Your task to perform on an android device: refresh tabs in the chrome app Image 0: 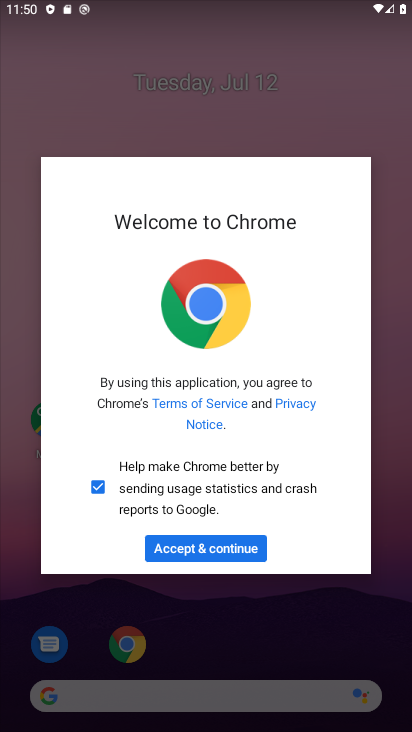
Step 0: click (181, 545)
Your task to perform on an android device: refresh tabs in the chrome app Image 1: 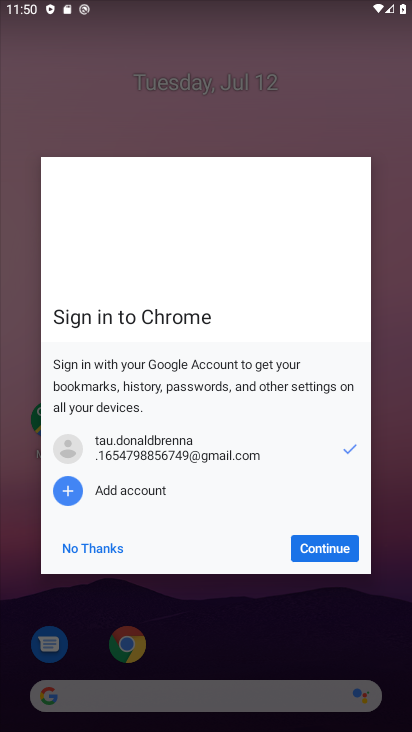
Step 1: click (332, 544)
Your task to perform on an android device: refresh tabs in the chrome app Image 2: 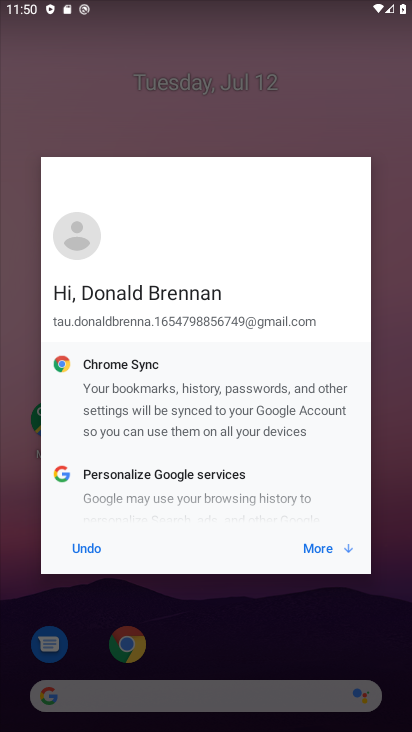
Step 2: click (332, 544)
Your task to perform on an android device: refresh tabs in the chrome app Image 3: 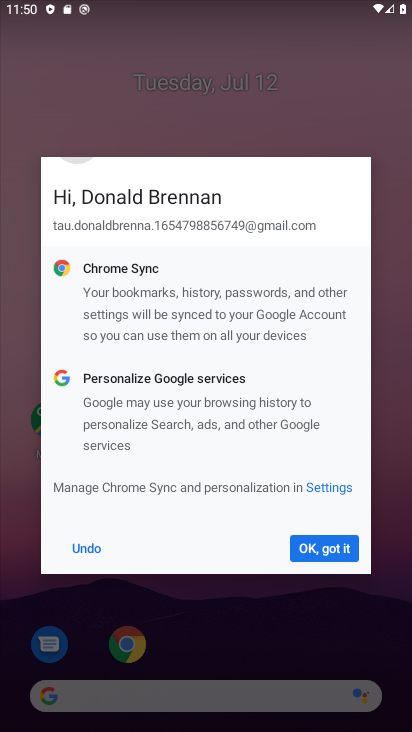
Step 3: click (332, 544)
Your task to perform on an android device: refresh tabs in the chrome app Image 4: 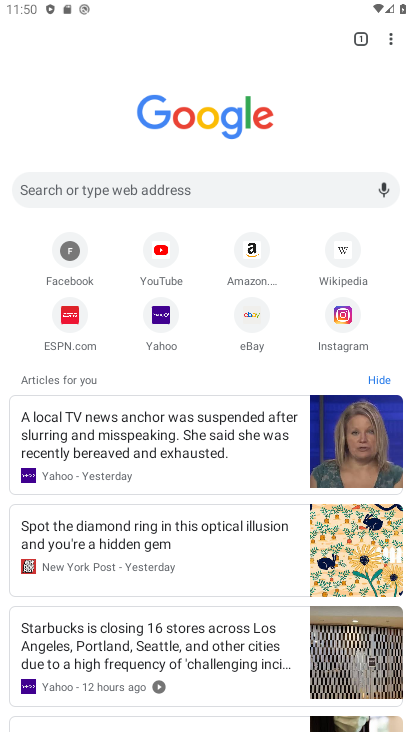
Step 4: click (385, 35)
Your task to perform on an android device: refresh tabs in the chrome app Image 5: 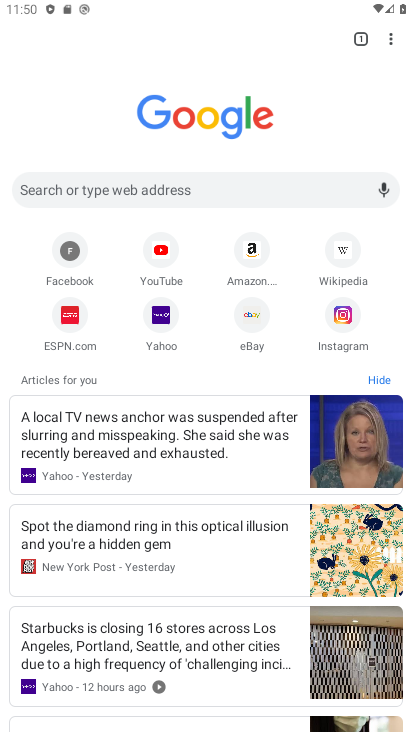
Step 5: click (382, 38)
Your task to perform on an android device: refresh tabs in the chrome app Image 6: 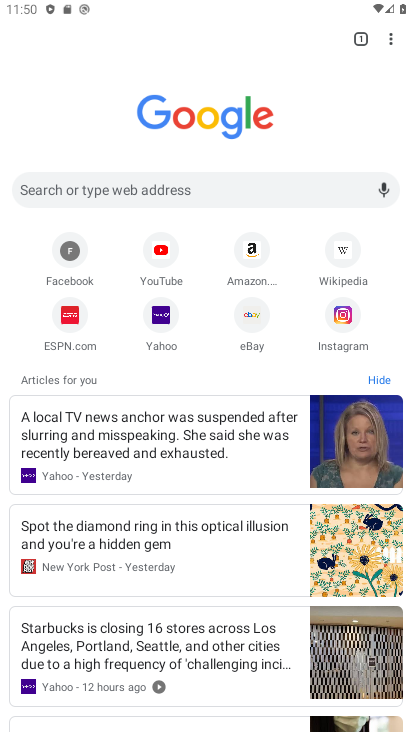
Step 6: click (388, 40)
Your task to perform on an android device: refresh tabs in the chrome app Image 7: 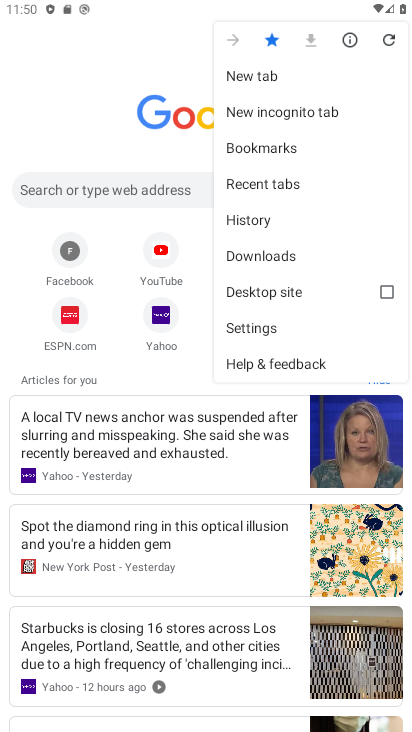
Step 7: click (387, 45)
Your task to perform on an android device: refresh tabs in the chrome app Image 8: 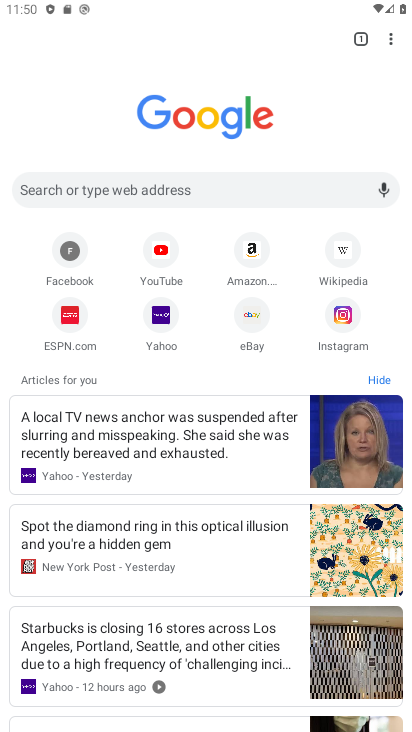
Step 8: task complete